Your task to perform on an android device: Go to Yahoo.com Image 0: 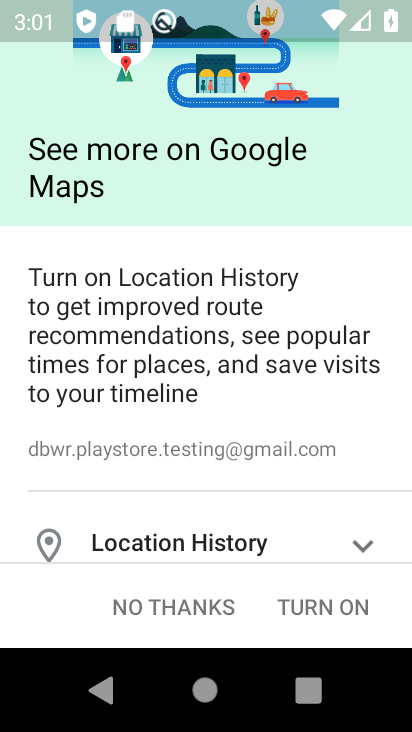
Step 0: press home button
Your task to perform on an android device: Go to Yahoo.com Image 1: 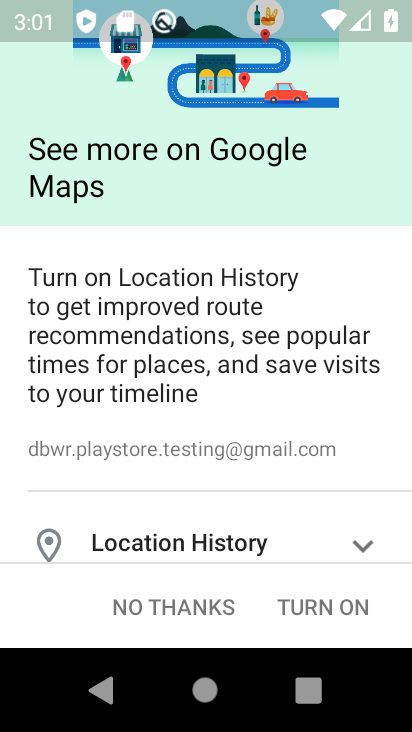
Step 1: press home button
Your task to perform on an android device: Go to Yahoo.com Image 2: 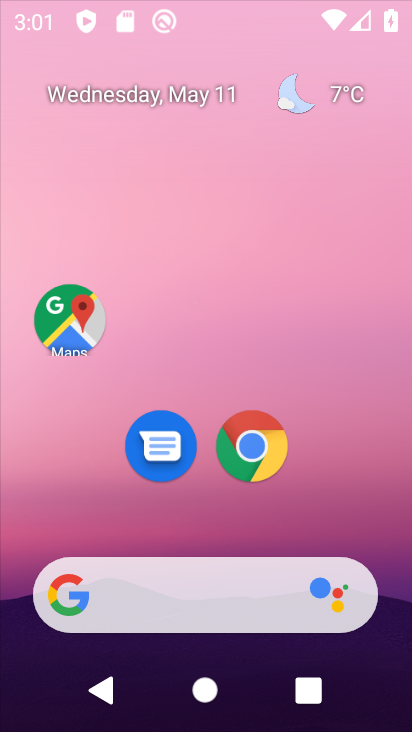
Step 2: press home button
Your task to perform on an android device: Go to Yahoo.com Image 3: 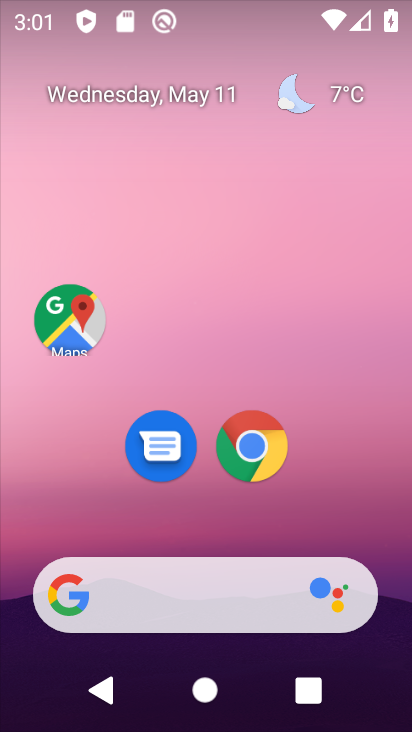
Step 3: drag from (347, 576) to (170, 108)
Your task to perform on an android device: Go to Yahoo.com Image 4: 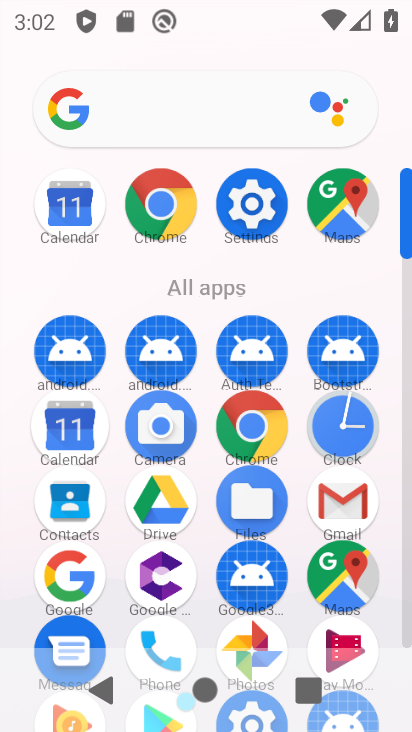
Step 4: click (167, 215)
Your task to perform on an android device: Go to Yahoo.com Image 5: 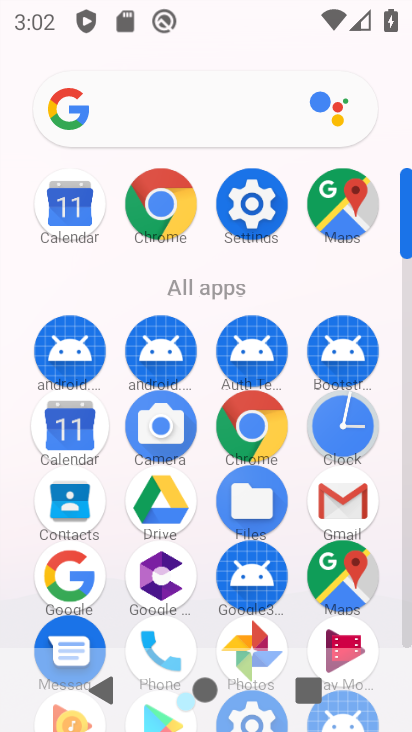
Step 5: click (167, 215)
Your task to perform on an android device: Go to Yahoo.com Image 6: 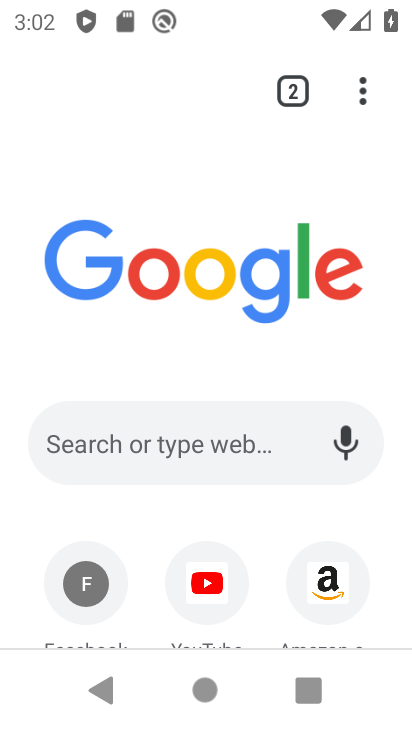
Step 6: drag from (282, 524) to (213, 131)
Your task to perform on an android device: Go to Yahoo.com Image 7: 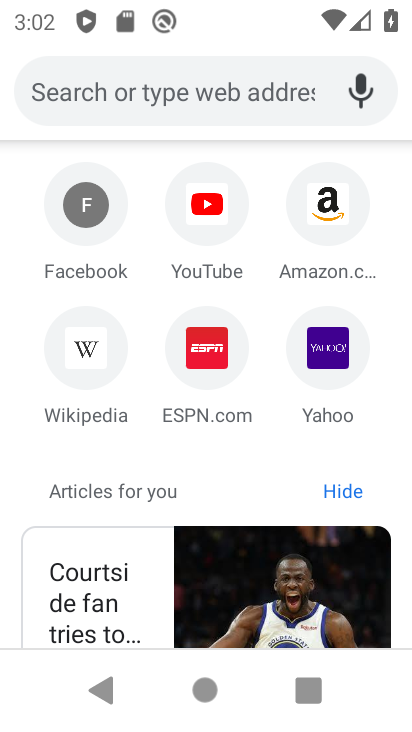
Step 7: drag from (280, 432) to (265, 191)
Your task to perform on an android device: Go to Yahoo.com Image 8: 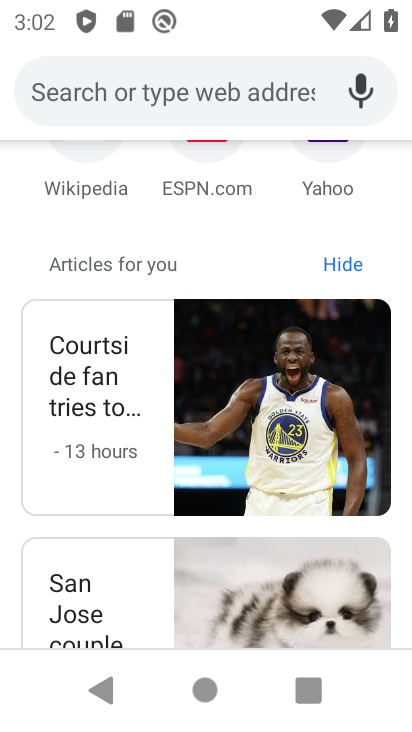
Step 8: drag from (255, 257) to (271, 474)
Your task to perform on an android device: Go to Yahoo.com Image 9: 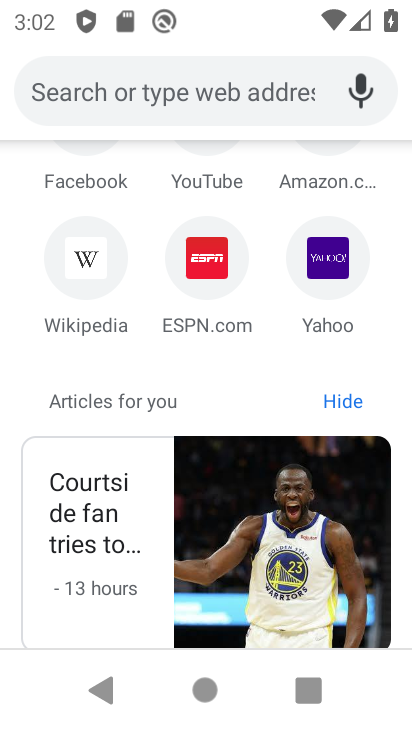
Step 9: drag from (230, 248) to (233, 445)
Your task to perform on an android device: Go to Yahoo.com Image 10: 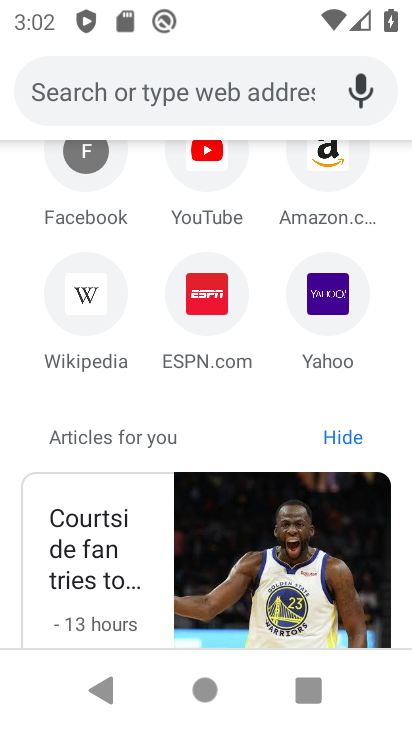
Step 10: drag from (220, 274) to (293, 566)
Your task to perform on an android device: Go to Yahoo.com Image 11: 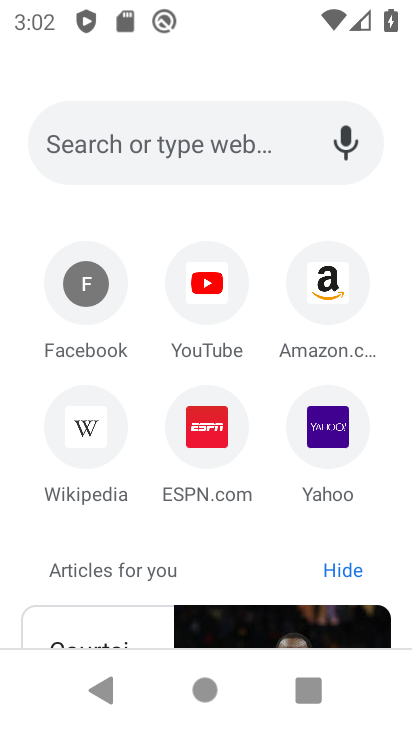
Step 11: drag from (231, 387) to (198, 697)
Your task to perform on an android device: Go to Yahoo.com Image 12: 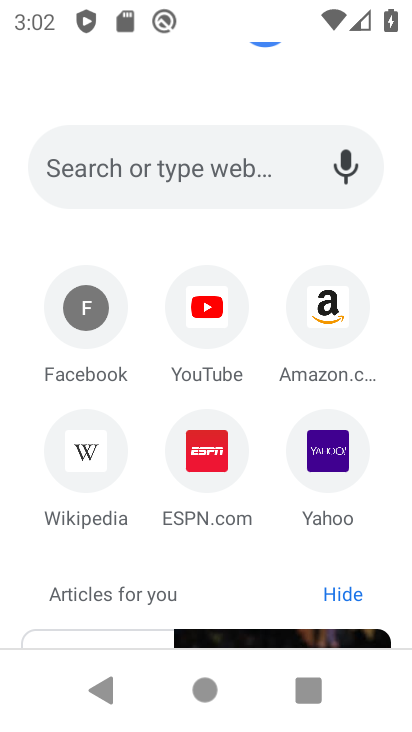
Step 12: drag from (192, 393) to (214, 608)
Your task to perform on an android device: Go to Yahoo.com Image 13: 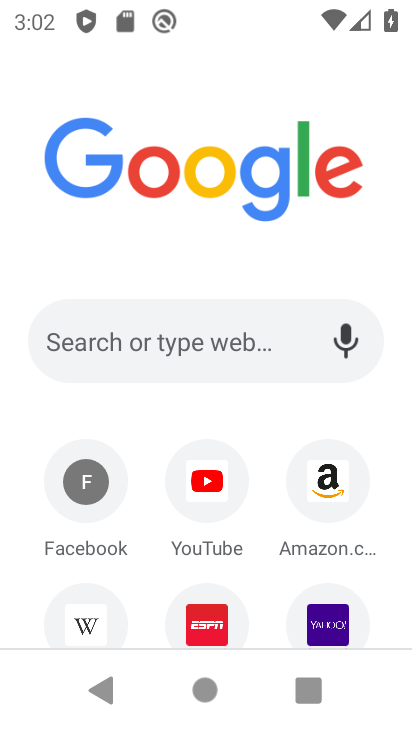
Step 13: drag from (360, 123) to (377, 607)
Your task to perform on an android device: Go to Yahoo.com Image 14: 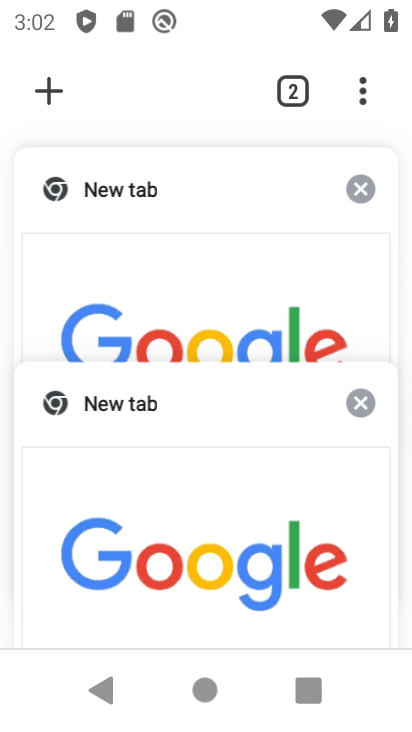
Step 14: drag from (363, 106) to (117, 358)
Your task to perform on an android device: Go to Yahoo.com Image 15: 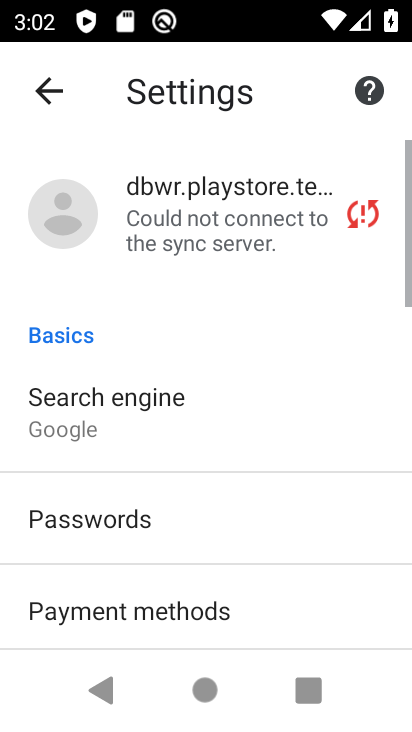
Step 15: press back button
Your task to perform on an android device: Go to Yahoo.com Image 16: 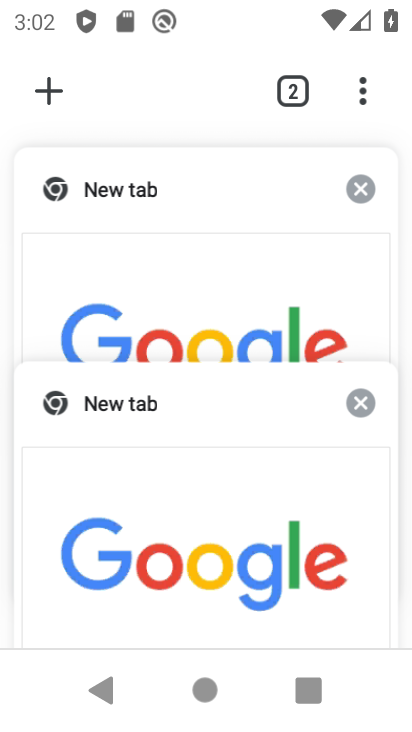
Step 16: click (52, 99)
Your task to perform on an android device: Go to Yahoo.com Image 17: 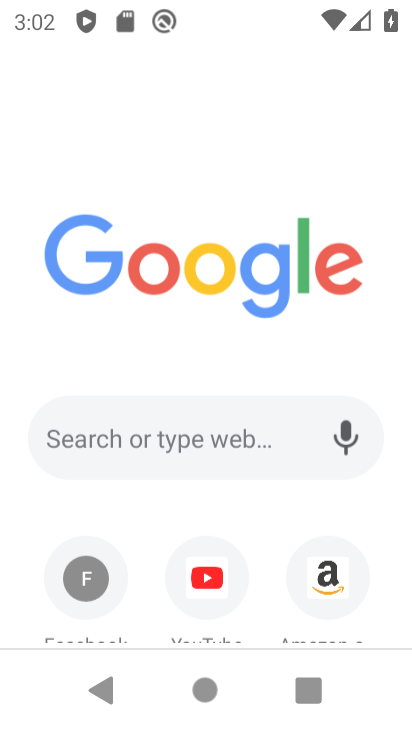
Step 17: press back button
Your task to perform on an android device: Go to Yahoo.com Image 18: 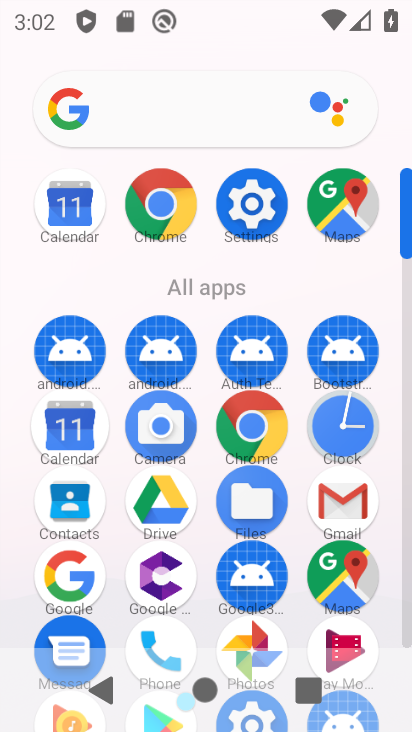
Step 18: click (173, 201)
Your task to perform on an android device: Go to Yahoo.com Image 19: 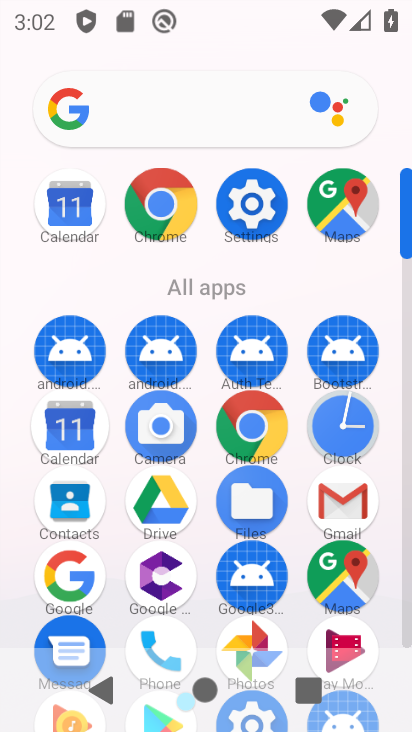
Step 19: click (176, 199)
Your task to perform on an android device: Go to Yahoo.com Image 20: 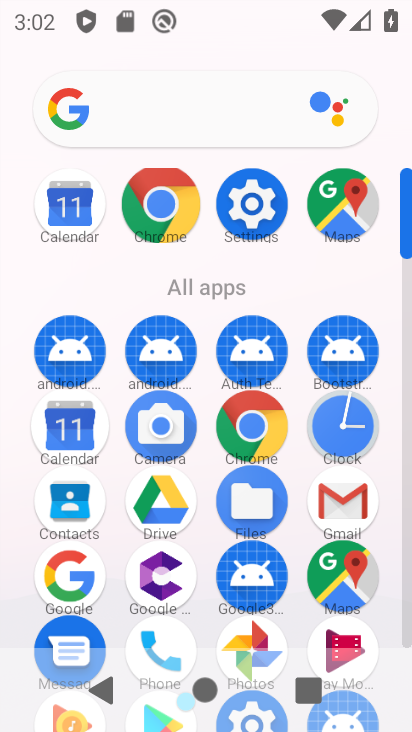
Step 20: click (179, 198)
Your task to perform on an android device: Go to Yahoo.com Image 21: 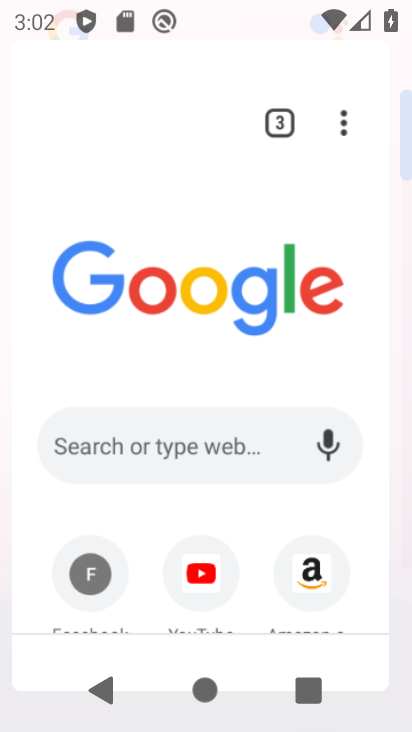
Step 21: click (181, 198)
Your task to perform on an android device: Go to Yahoo.com Image 22: 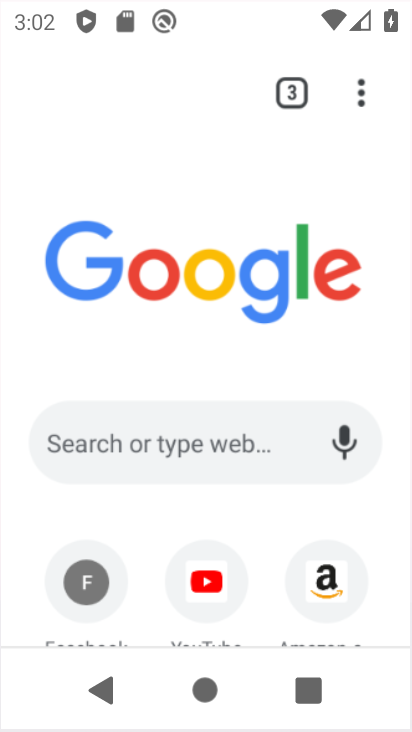
Step 22: click (185, 199)
Your task to perform on an android device: Go to Yahoo.com Image 23: 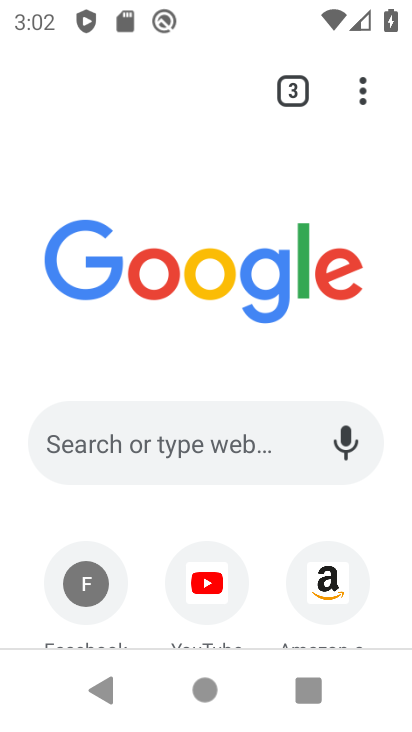
Step 23: click (159, 447)
Your task to perform on an android device: Go to Yahoo.com Image 24: 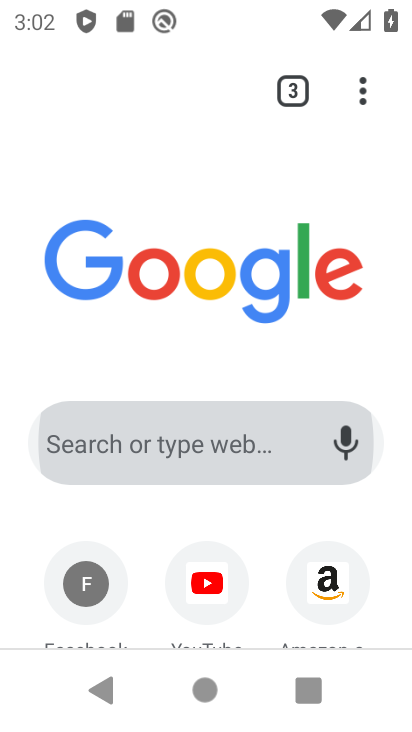
Step 24: click (144, 440)
Your task to perform on an android device: Go to Yahoo.com Image 25: 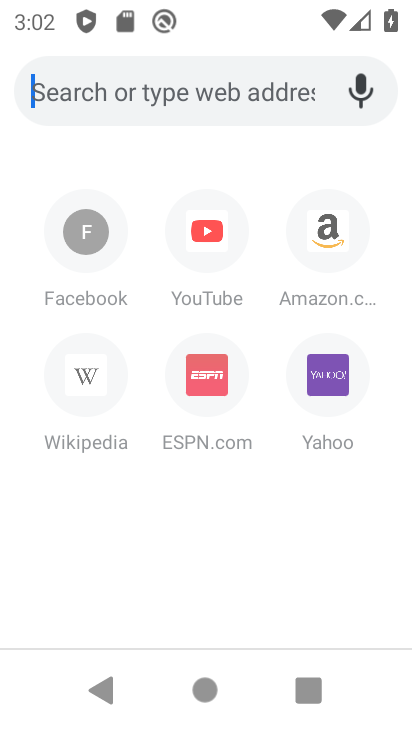
Step 25: click (143, 439)
Your task to perform on an android device: Go to Yahoo.com Image 26: 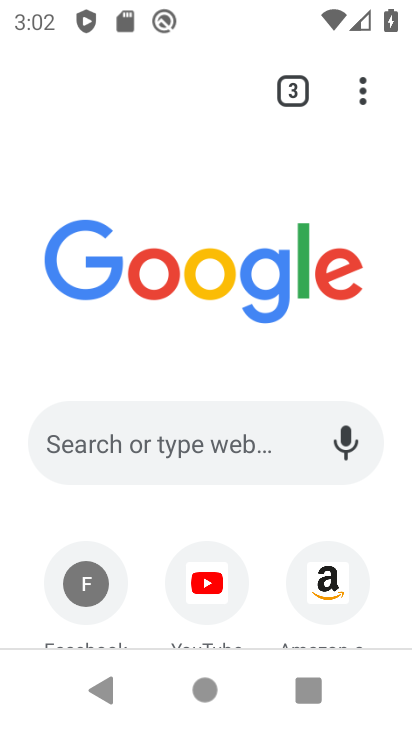
Step 26: click (99, 439)
Your task to perform on an android device: Go to Yahoo.com Image 27: 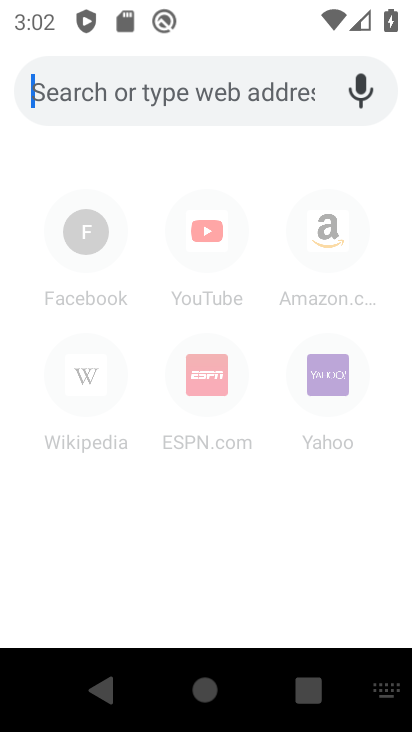
Step 27: type "yahoo.com"
Your task to perform on an android device: Go to Yahoo.com Image 28: 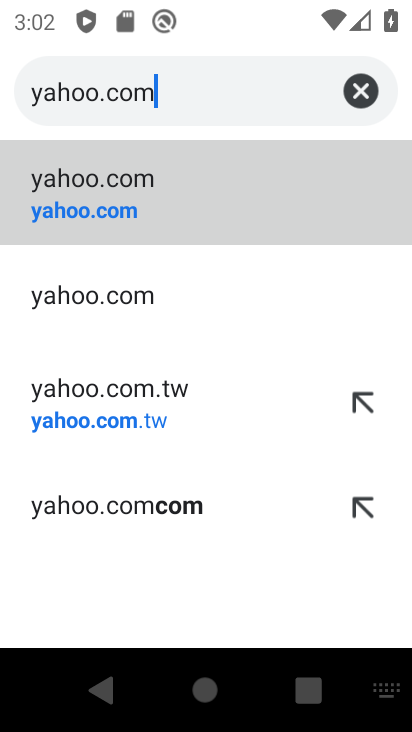
Step 28: click (92, 211)
Your task to perform on an android device: Go to Yahoo.com Image 29: 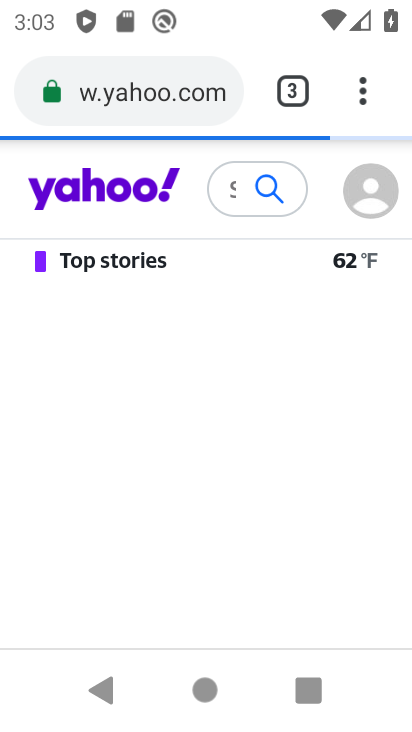
Step 29: task complete